Your task to perform on an android device: open app "Upside-Cash back on gas & food" (install if not already installed) Image 0: 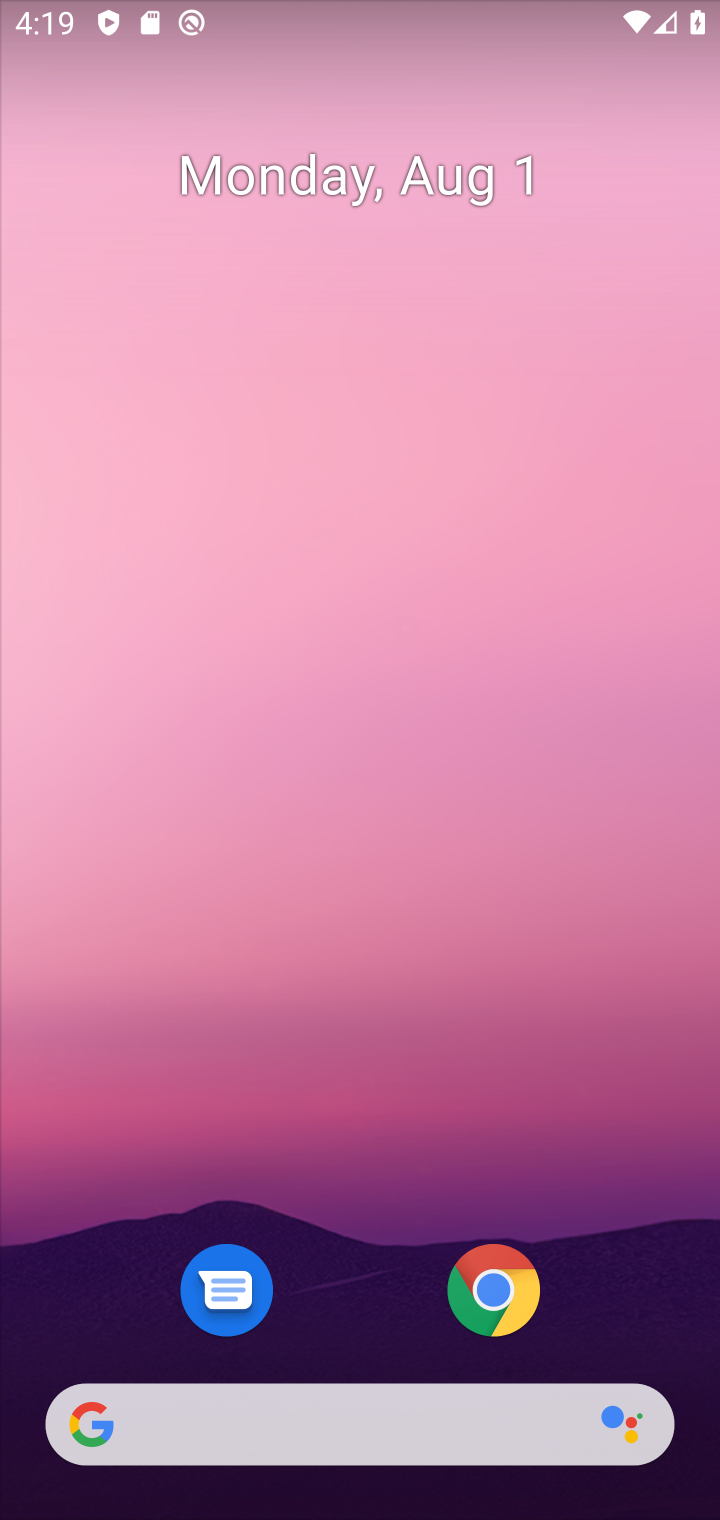
Step 0: drag from (400, 1449) to (434, 89)
Your task to perform on an android device: open app "Upside-Cash back on gas & food" (install if not already installed) Image 1: 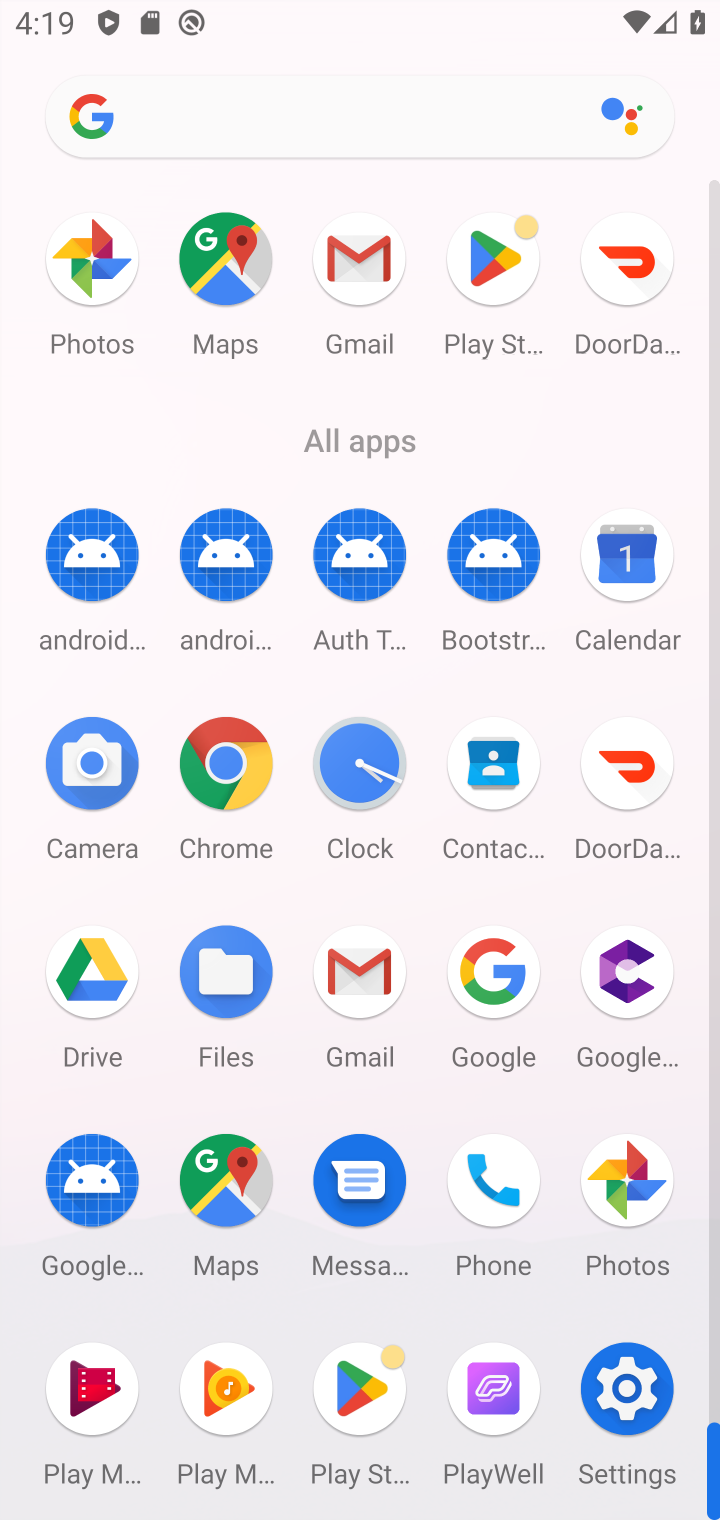
Step 1: click (371, 1346)
Your task to perform on an android device: open app "Upside-Cash back on gas & food" (install if not already installed) Image 2: 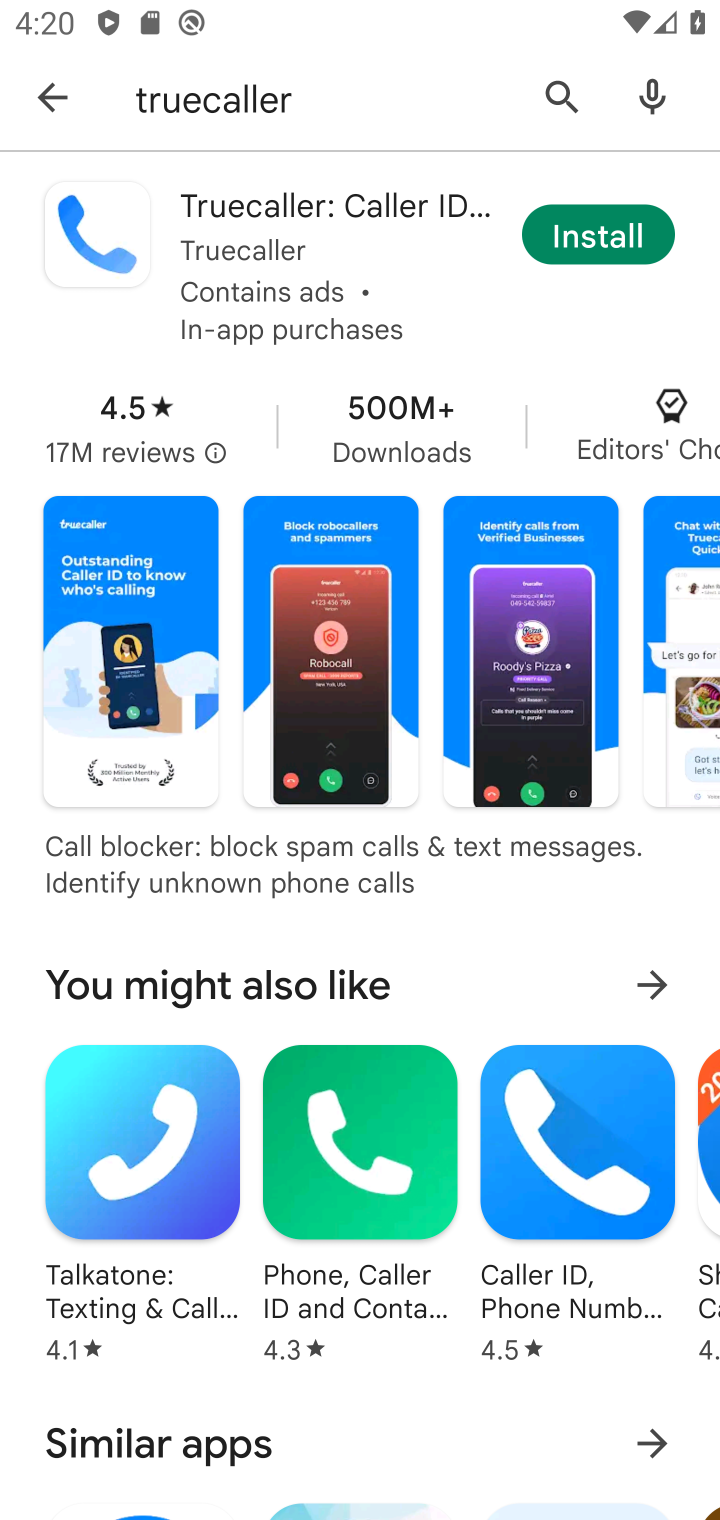
Step 2: click (571, 80)
Your task to perform on an android device: open app "Upside-Cash back on gas & food" (install if not already installed) Image 3: 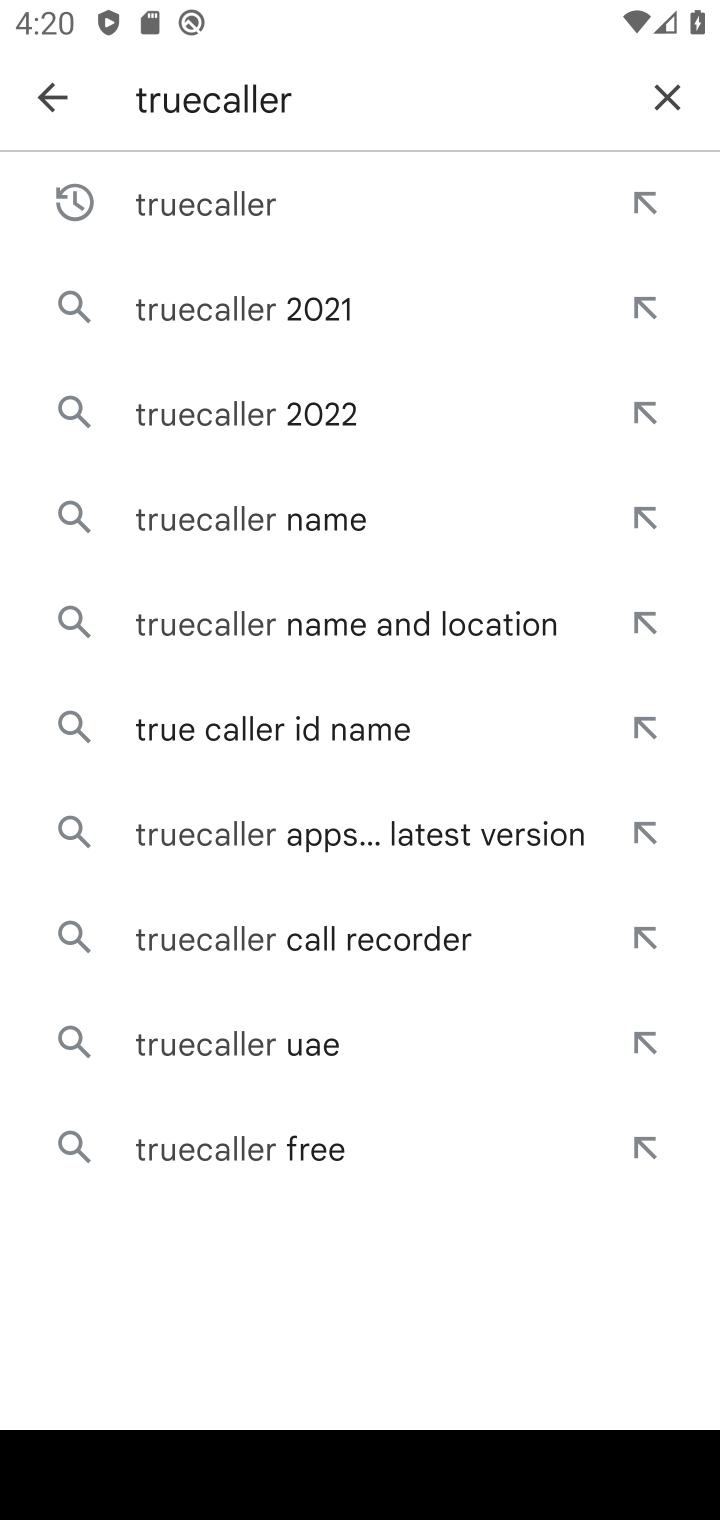
Step 3: click (671, 106)
Your task to perform on an android device: open app "Upside-Cash back on gas & food" (install if not already installed) Image 4: 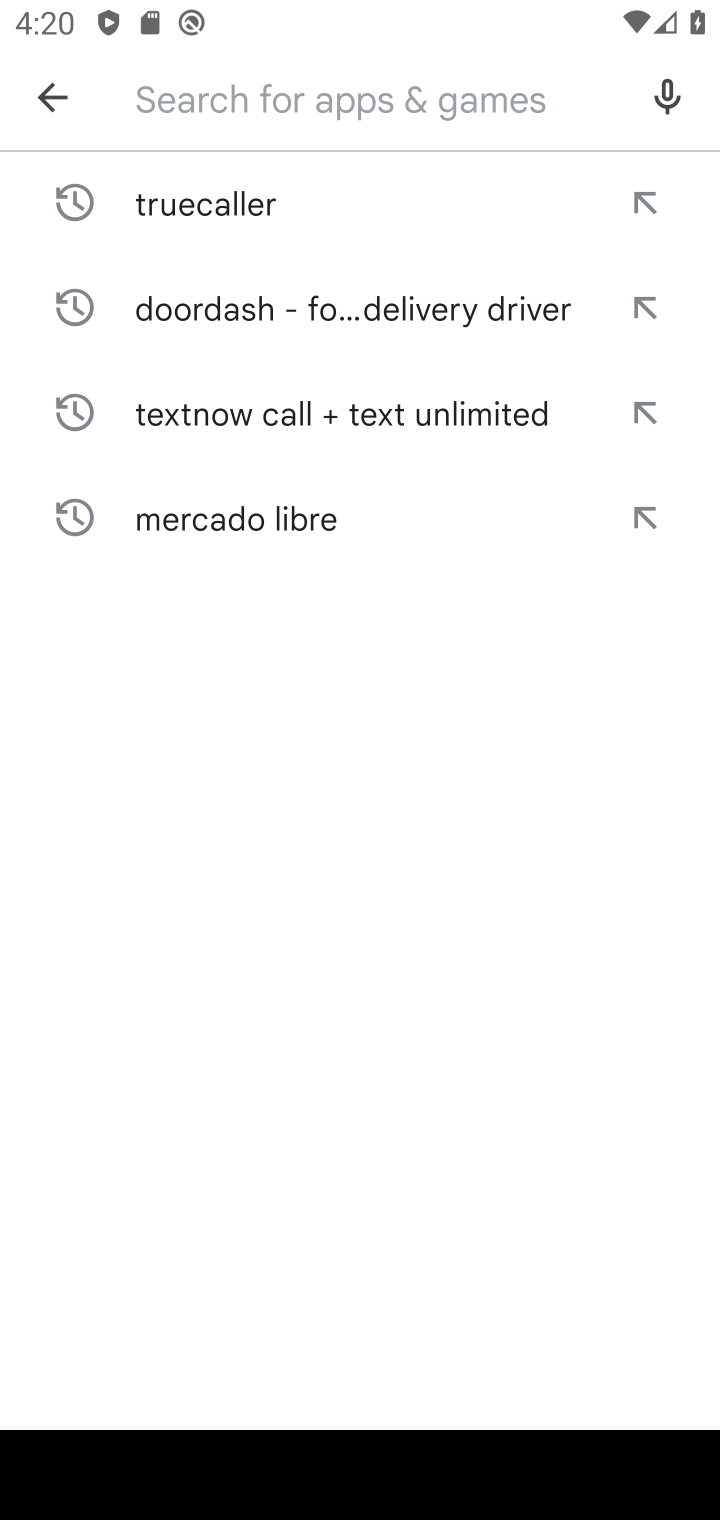
Step 4: type "upside-cashback on gas & food "
Your task to perform on an android device: open app "Upside-Cash back on gas & food" (install if not already installed) Image 5: 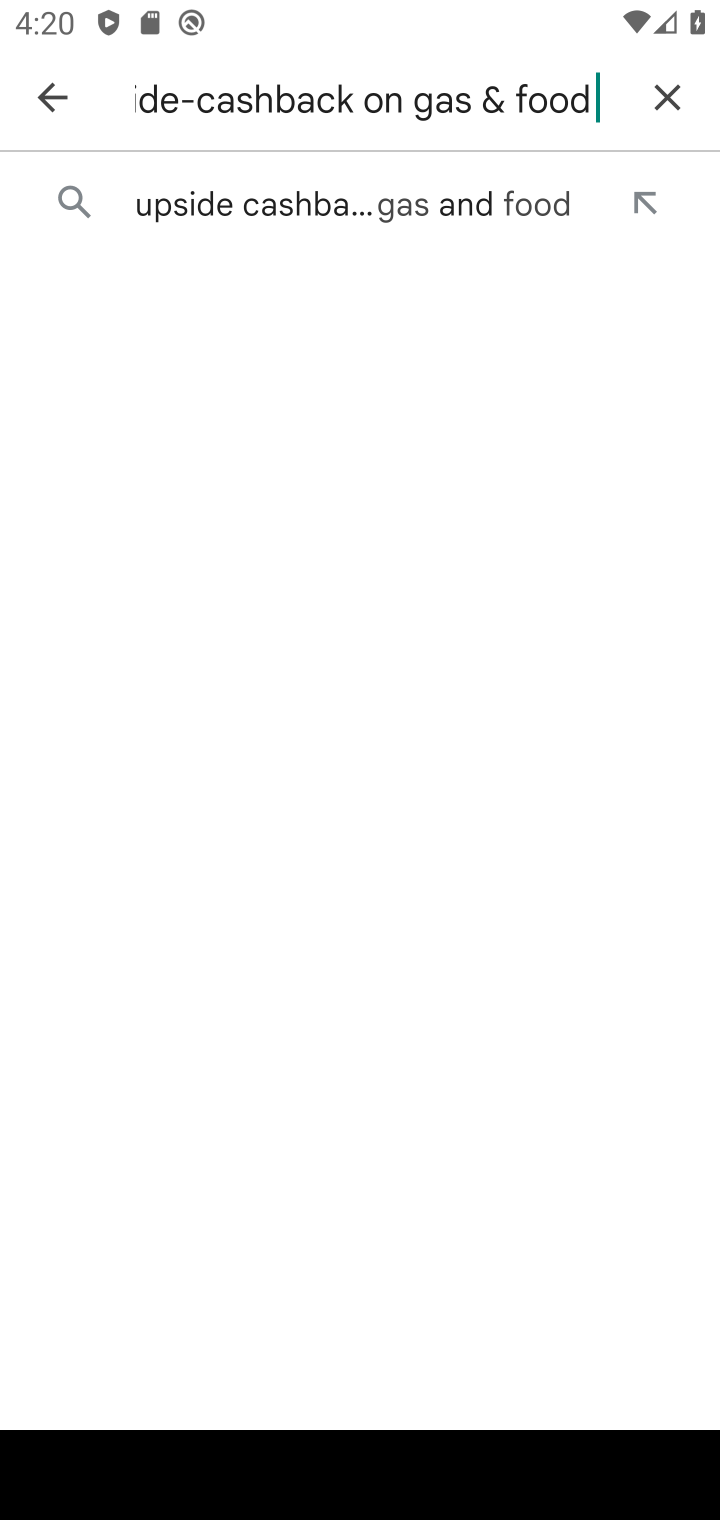
Step 5: click (565, 184)
Your task to perform on an android device: open app "Upside-Cash back on gas & food" (install if not already installed) Image 6: 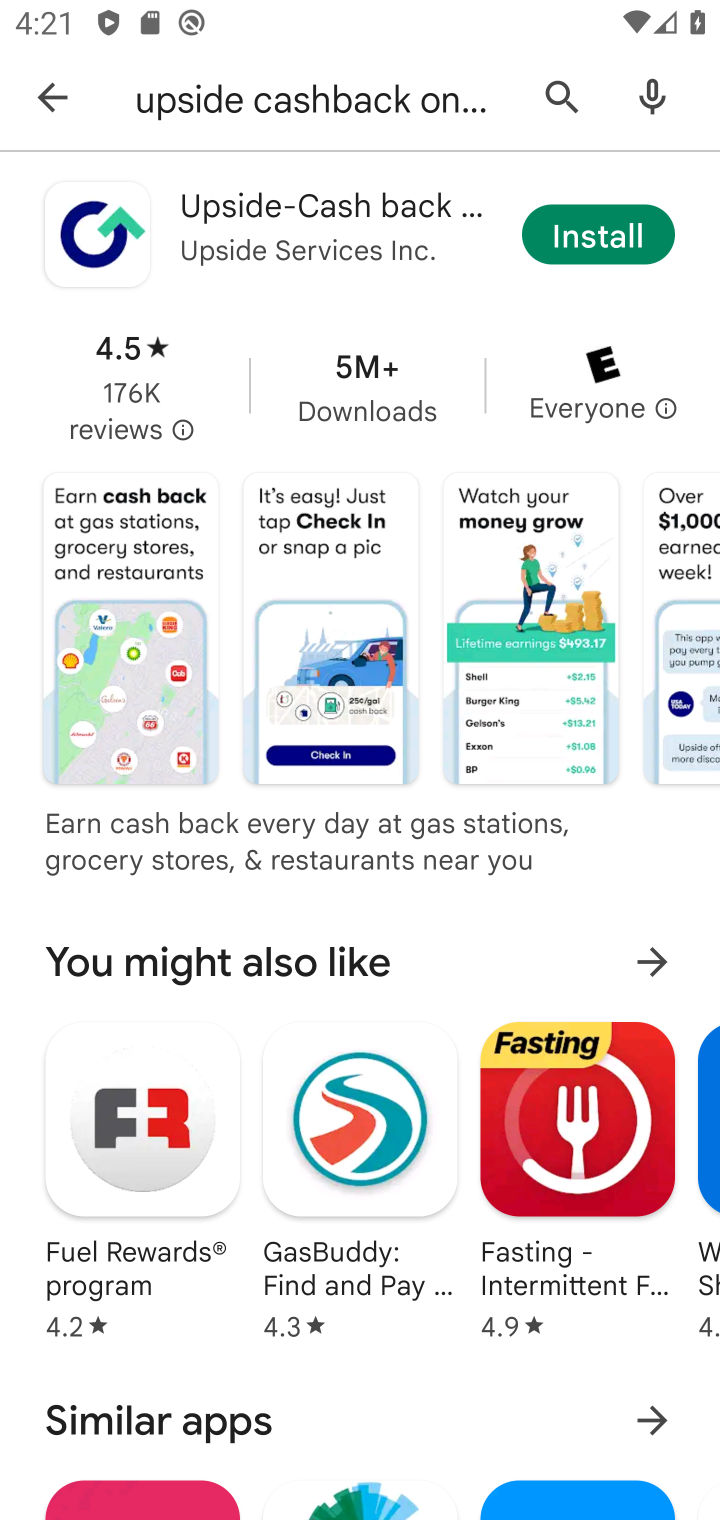
Step 6: click (654, 239)
Your task to perform on an android device: open app "Upside-Cash back on gas & food" (install if not already installed) Image 7: 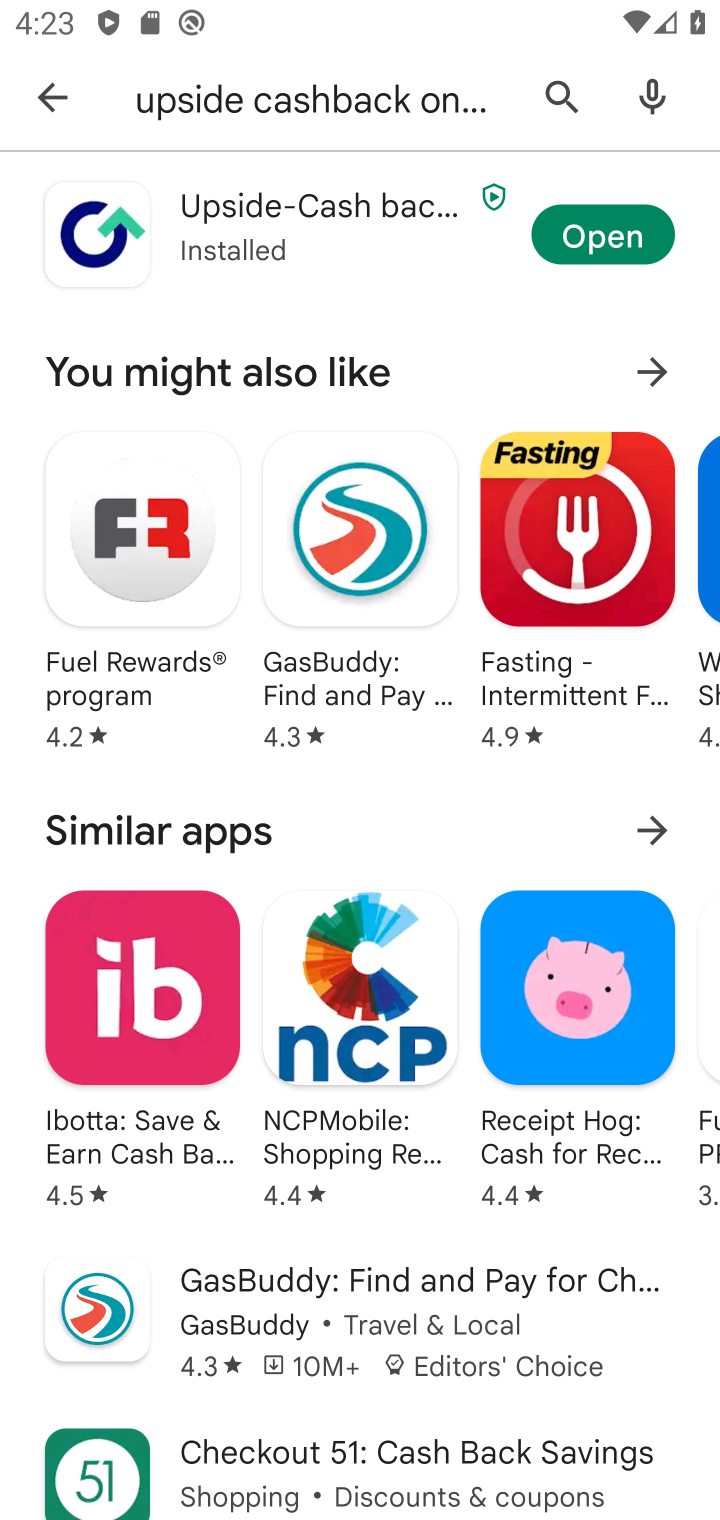
Step 7: task complete